Your task to perform on an android device: Is it going to rain this weekend? Image 0: 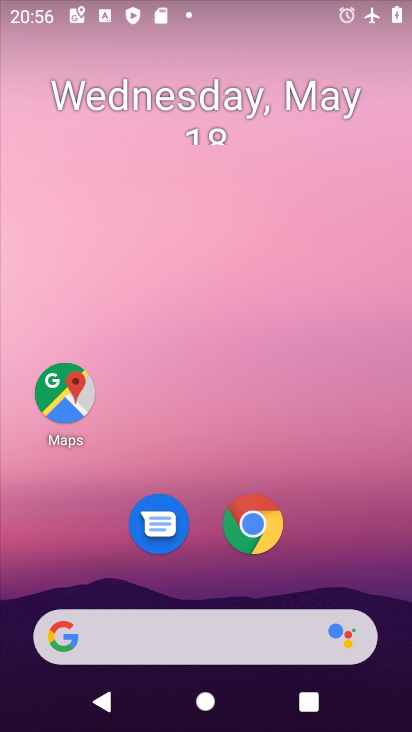
Step 0: click (262, 630)
Your task to perform on an android device: Is it going to rain this weekend? Image 1: 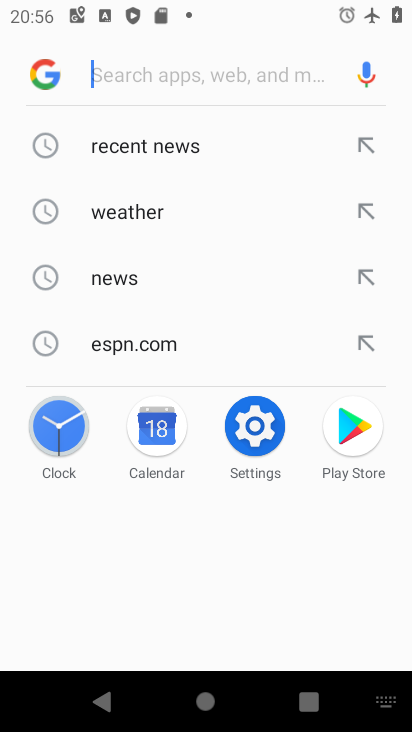
Step 1: click (52, 205)
Your task to perform on an android device: Is it going to rain this weekend? Image 2: 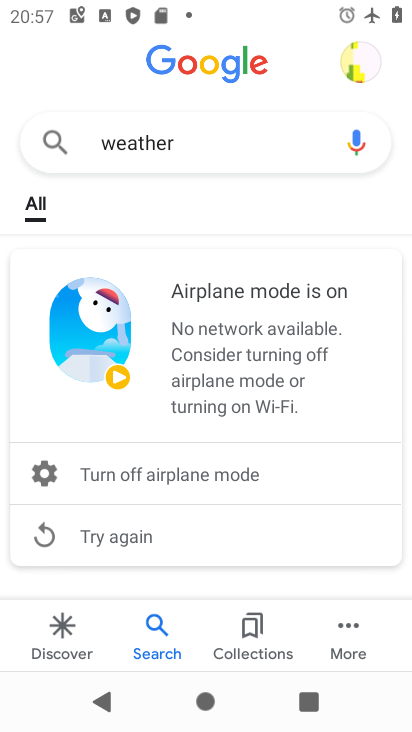
Step 2: task complete